Your task to perform on an android device: Show me popular videos on Youtube Image 0: 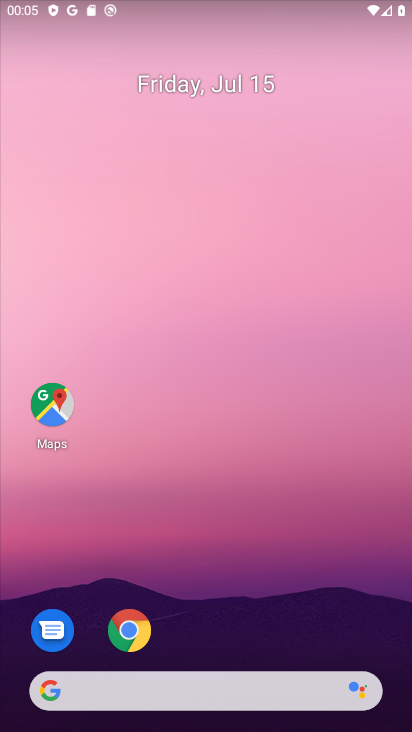
Step 0: drag from (255, 643) to (255, 182)
Your task to perform on an android device: Show me popular videos on Youtube Image 1: 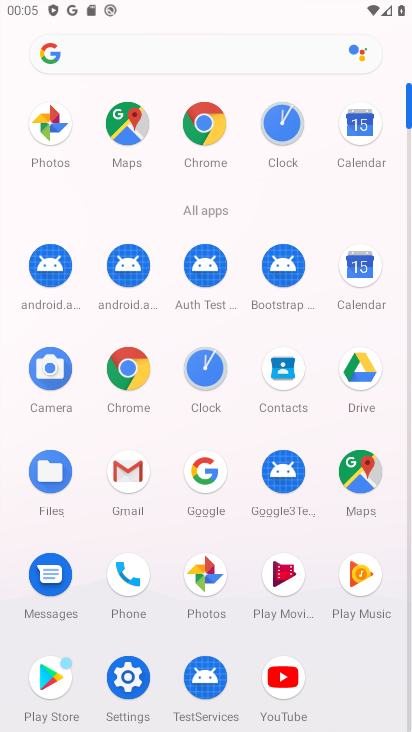
Step 1: click (279, 675)
Your task to perform on an android device: Show me popular videos on Youtube Image 2: 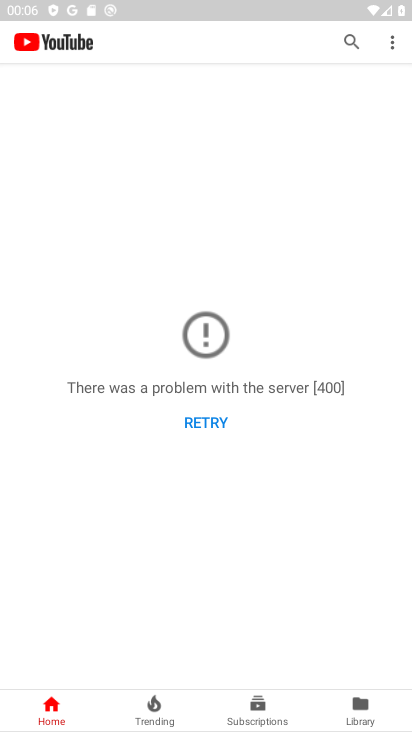
Step 2: click (170, 709)
Your task to perform on an android device: Show me popular videos on Youtube Image 3: 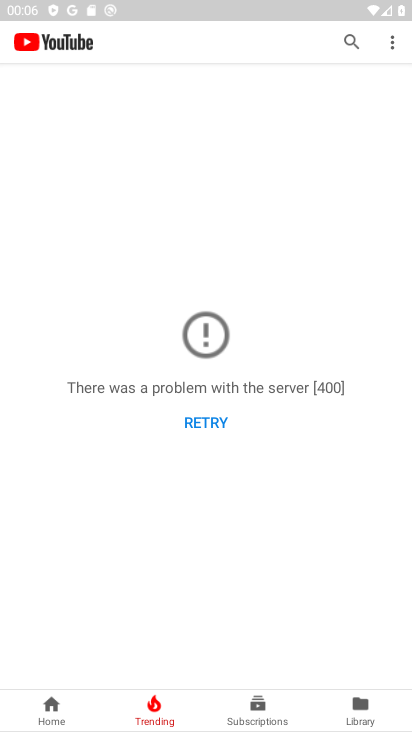
Step 3: task complete